Your task to perform on an android device: Go to Yahoo.com Image 0: 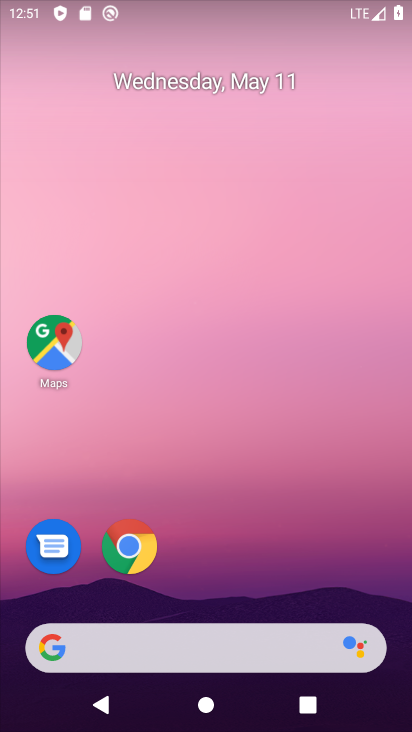
Step 0: drag from (331, 664) to (257, 335)
Your task to perform on an android device: Go to Yahoo.com Image 1: 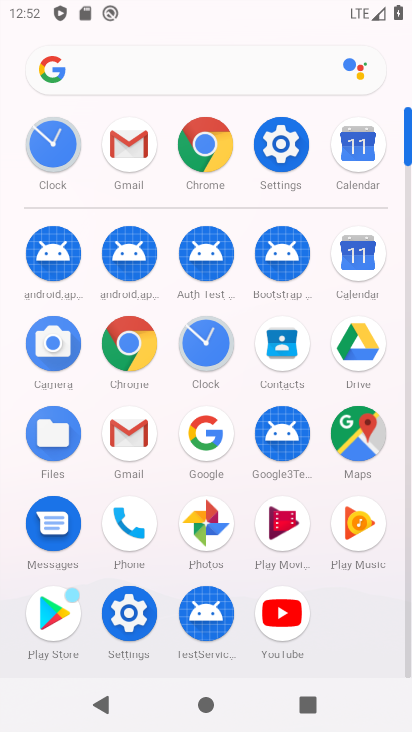
Step 1: click (199, 152)
Your task to perform on an android device: Go to Yahoo.com Image 2: 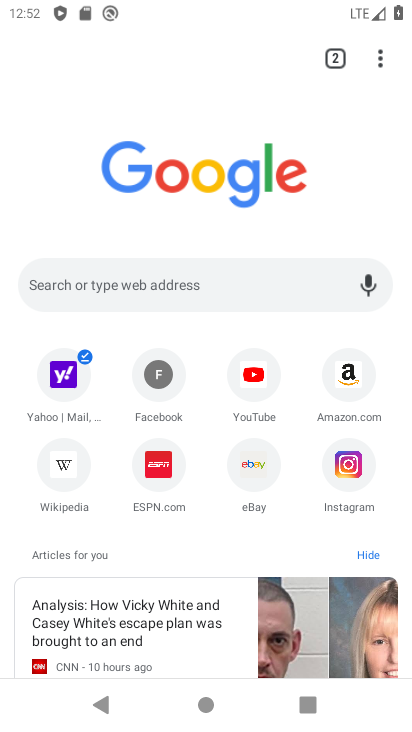
Step 2: click (52, 393)
Your task to perform on an android device: Go to Yahoo.com Image 3: 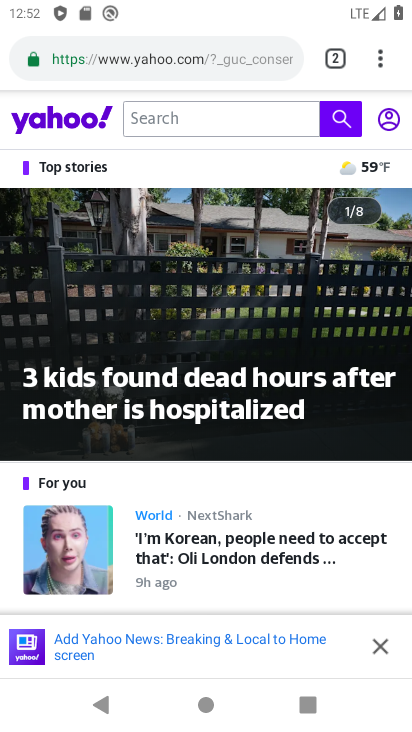
Step 3: task complete